Your task to perform on an android device: read, delete, or share a saved page in the chrome app Image 0: 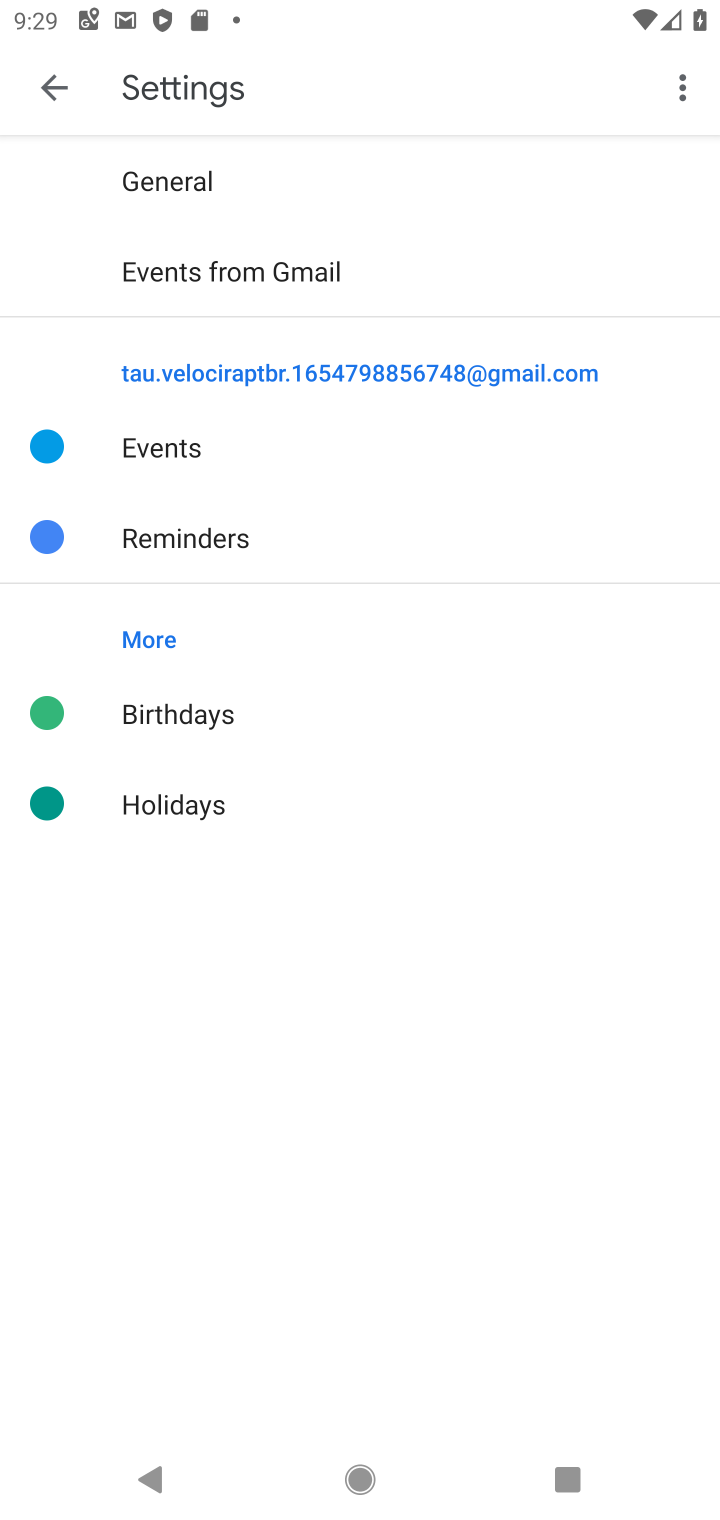
Step 0: press back button
Your task to perform on an android device: read, delete, or share a saved page in the chrome app Image 1: 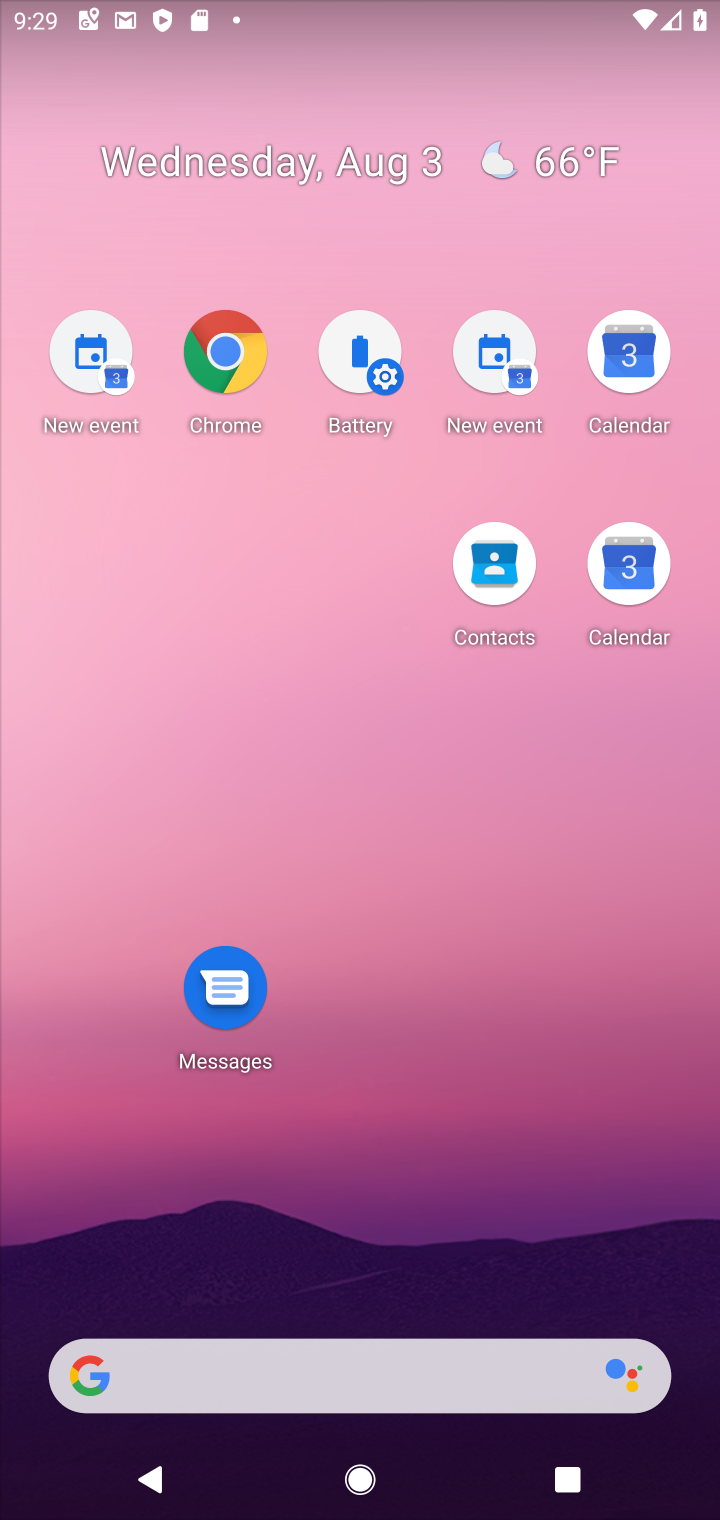
Step 1: press back button
Your task to perform on an android device: read, delete, or share a saved page in the chrome app Image 2: 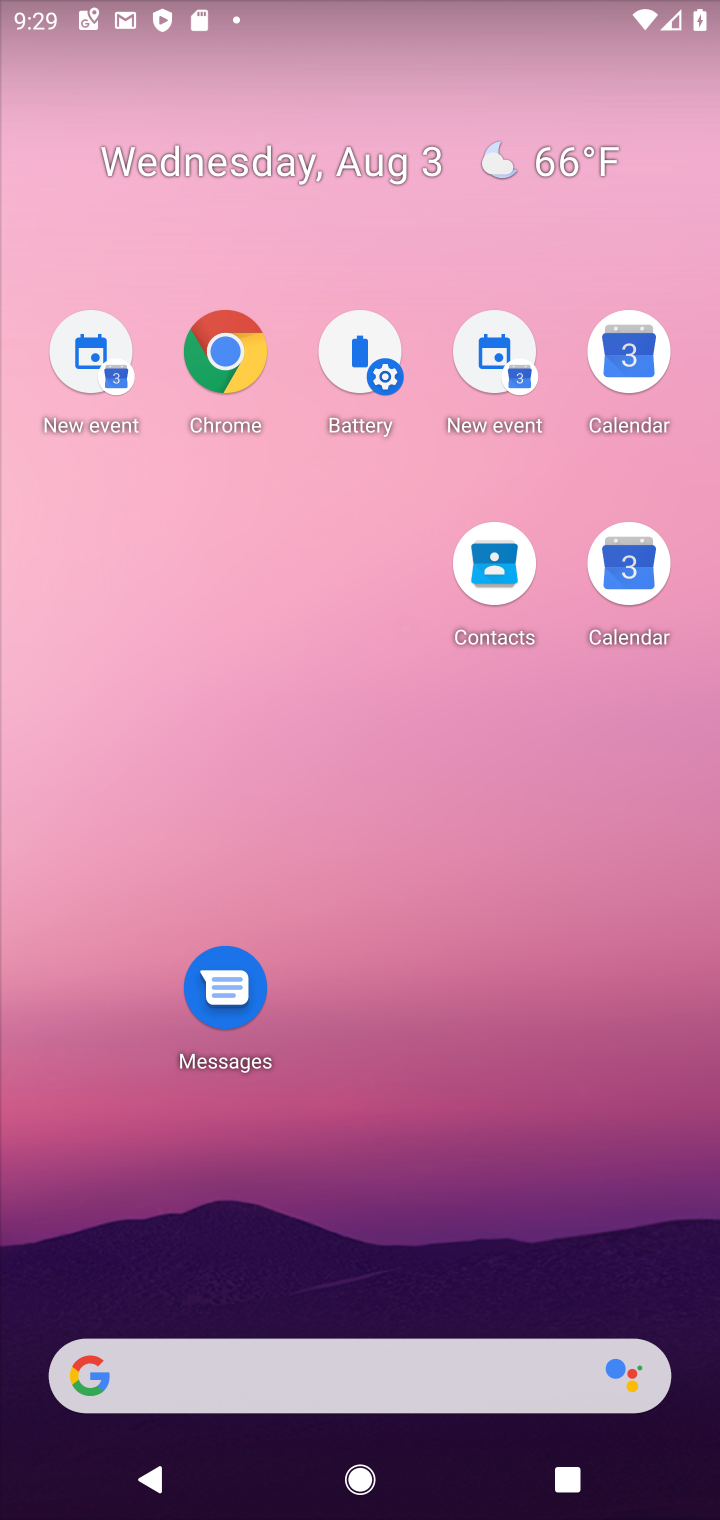
Step 2: drag from (37, 530) to (168, 377)
Your task to perform on an android device: read, delete, or share a saved page in the chrome app Image 3: 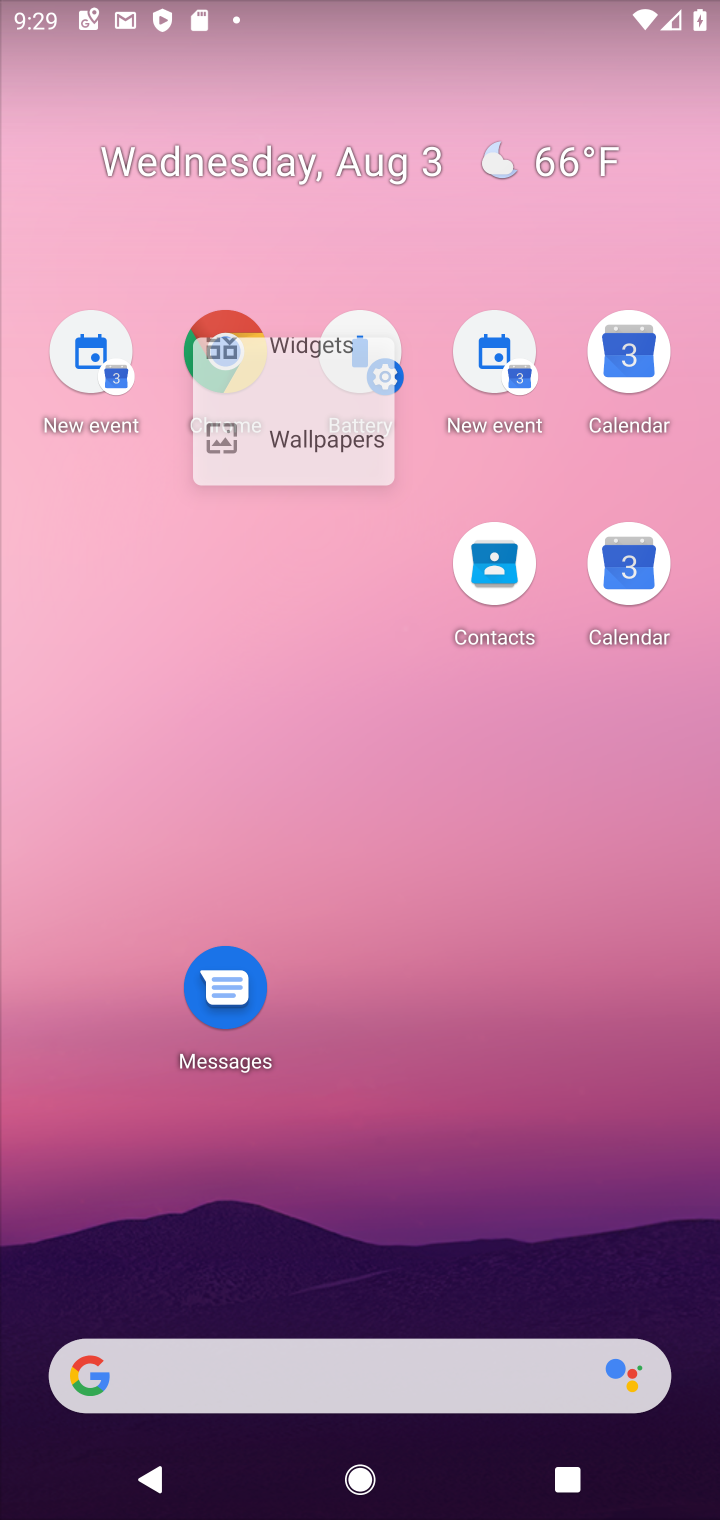
Step 3: click (262, 218)
Your task to perform on an android device: read, delete, or share a saved page in the chrome app Image 4: 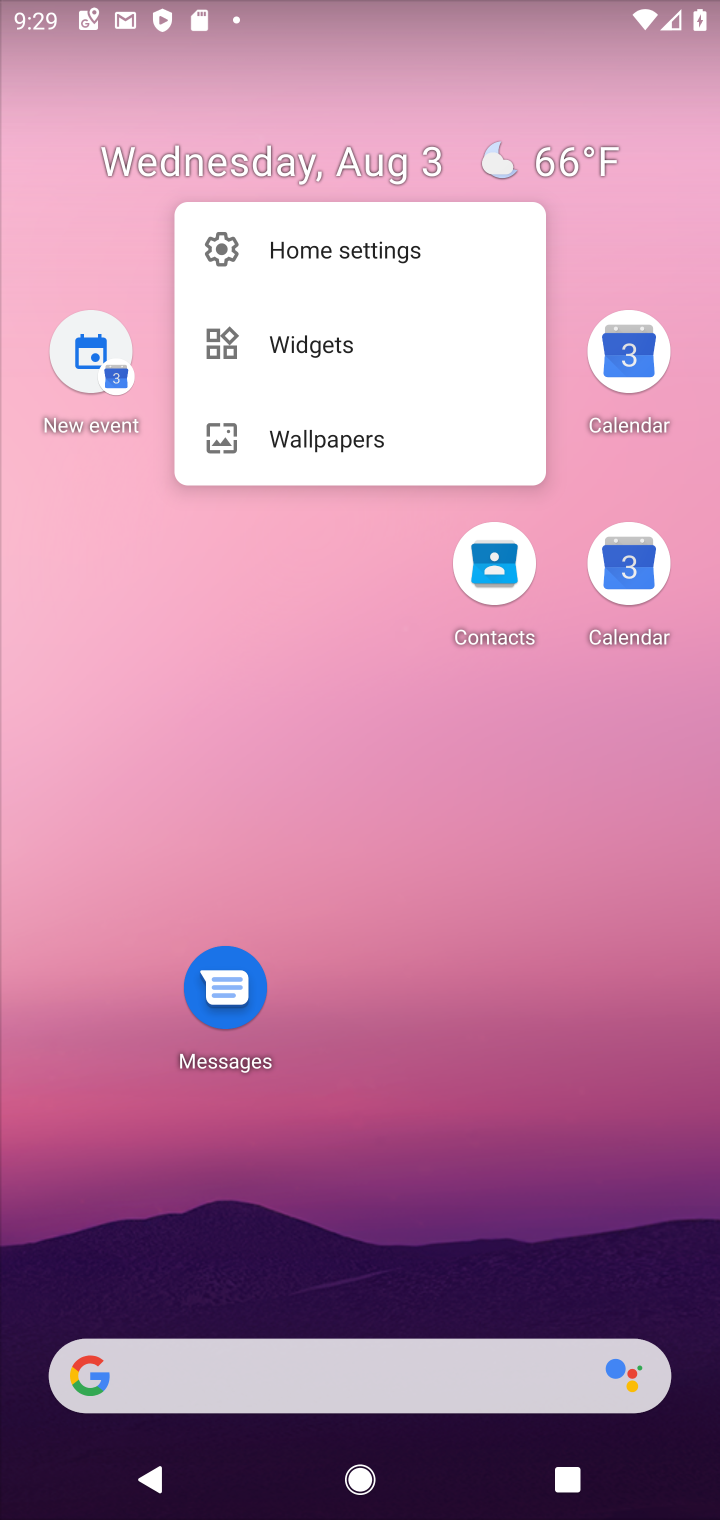
Step 4: drag from (472, 603) to (430, 248)
Your task to perform on an android device: read, delete, or share a saved page in the chrome app Image 5: 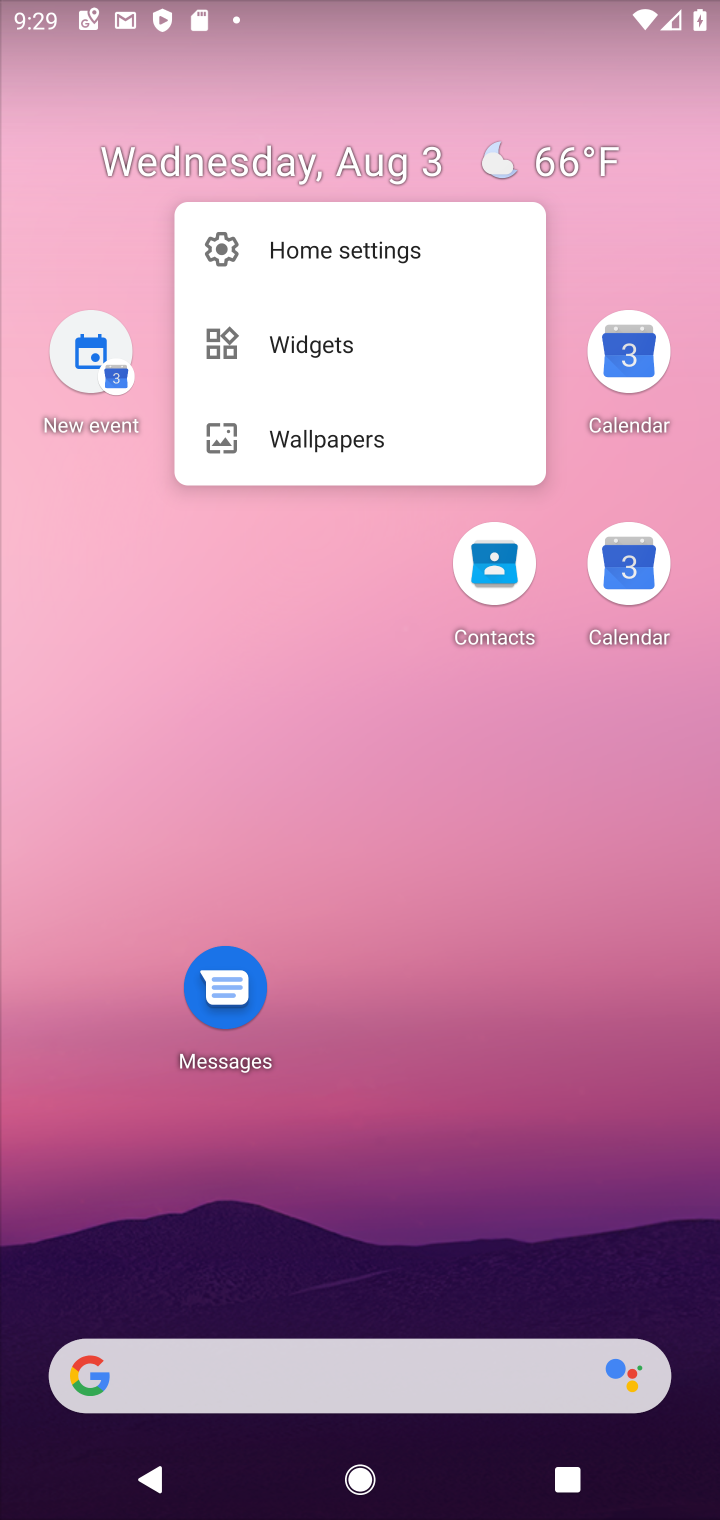
Step 5: click (613, 390)
Your task to perform on an android device: read, delete, or share a saved page in the chrome app Image 6: 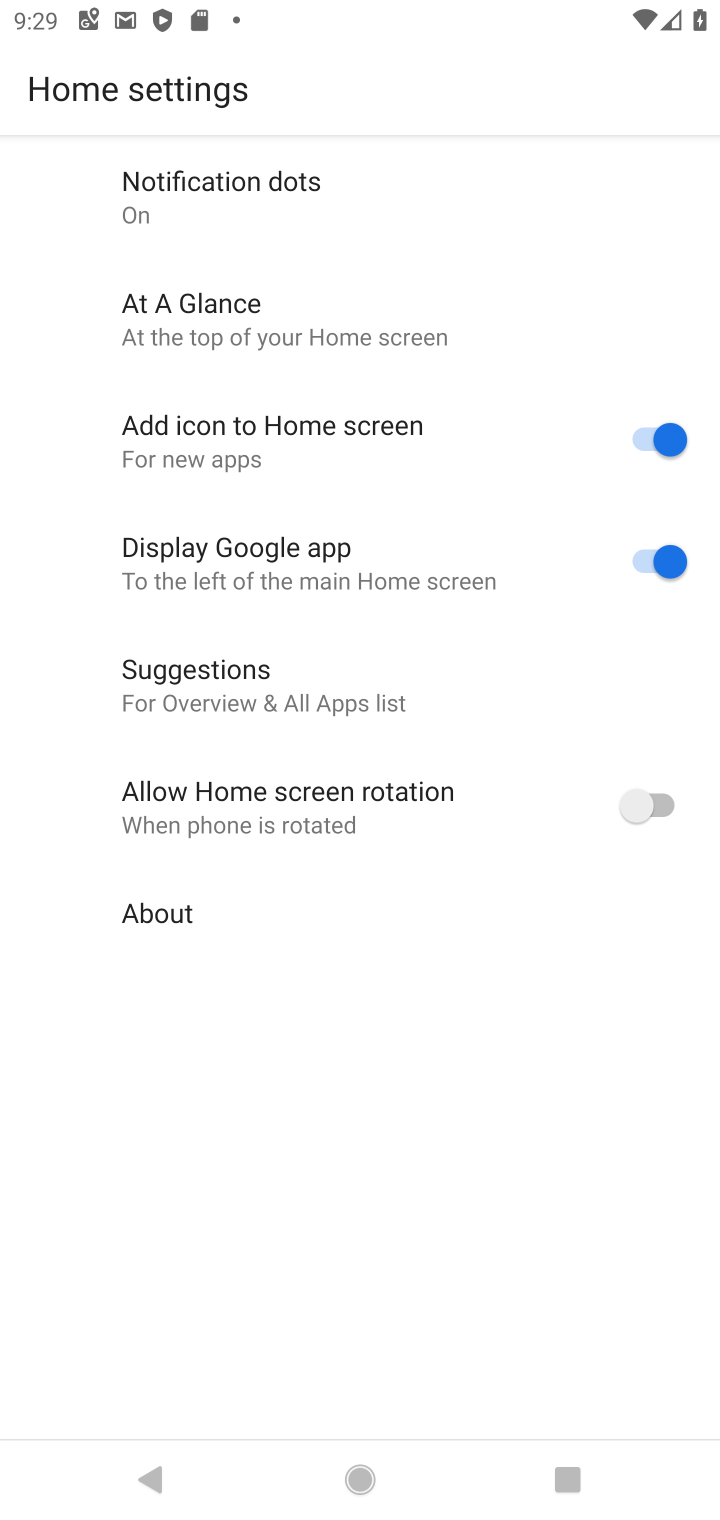
Step 6: click (567, 191)
Your task to perform on an android device: read, delete, or share a saved page in the chrome app Image 7: 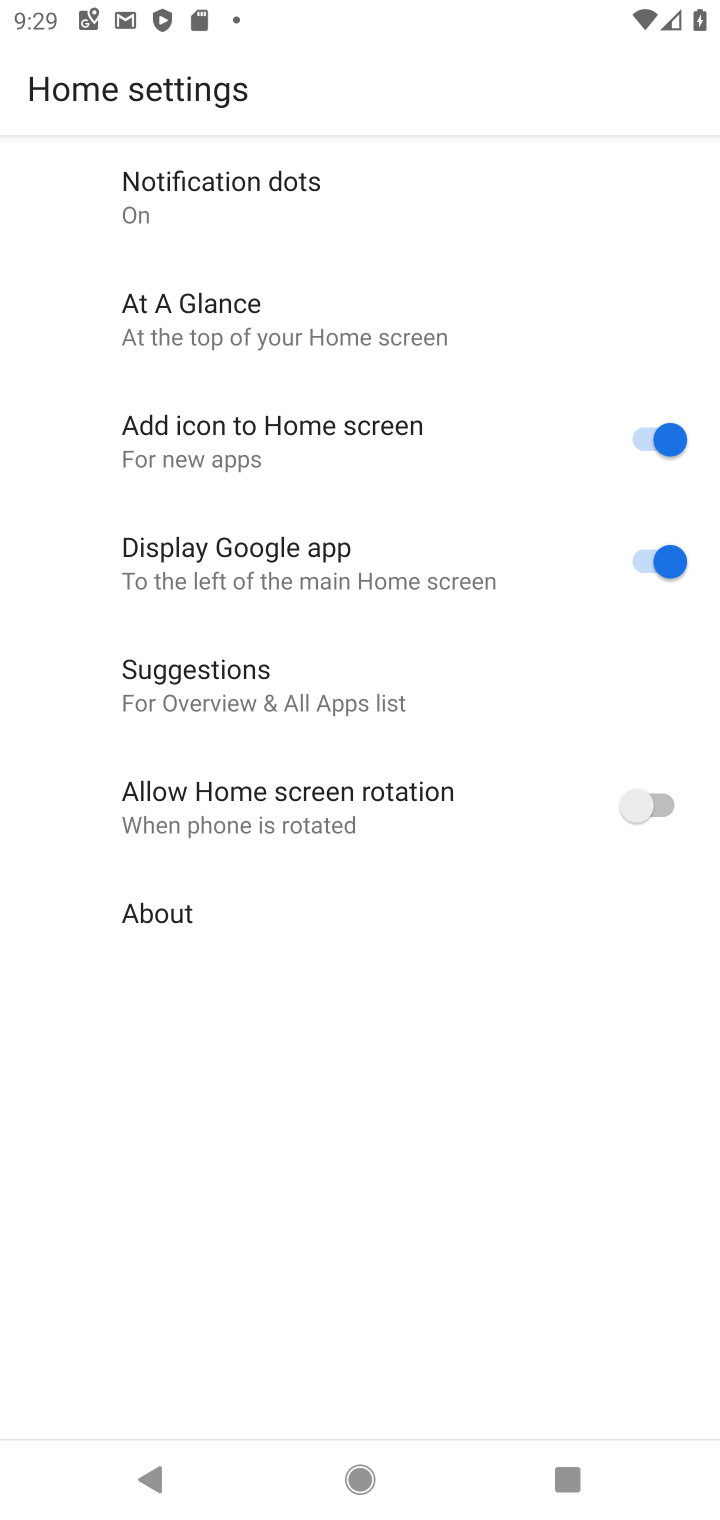
Step 7: press back button
Your task to perform on an android device: read, delete, or share a saved page in the chrome app Image 8: 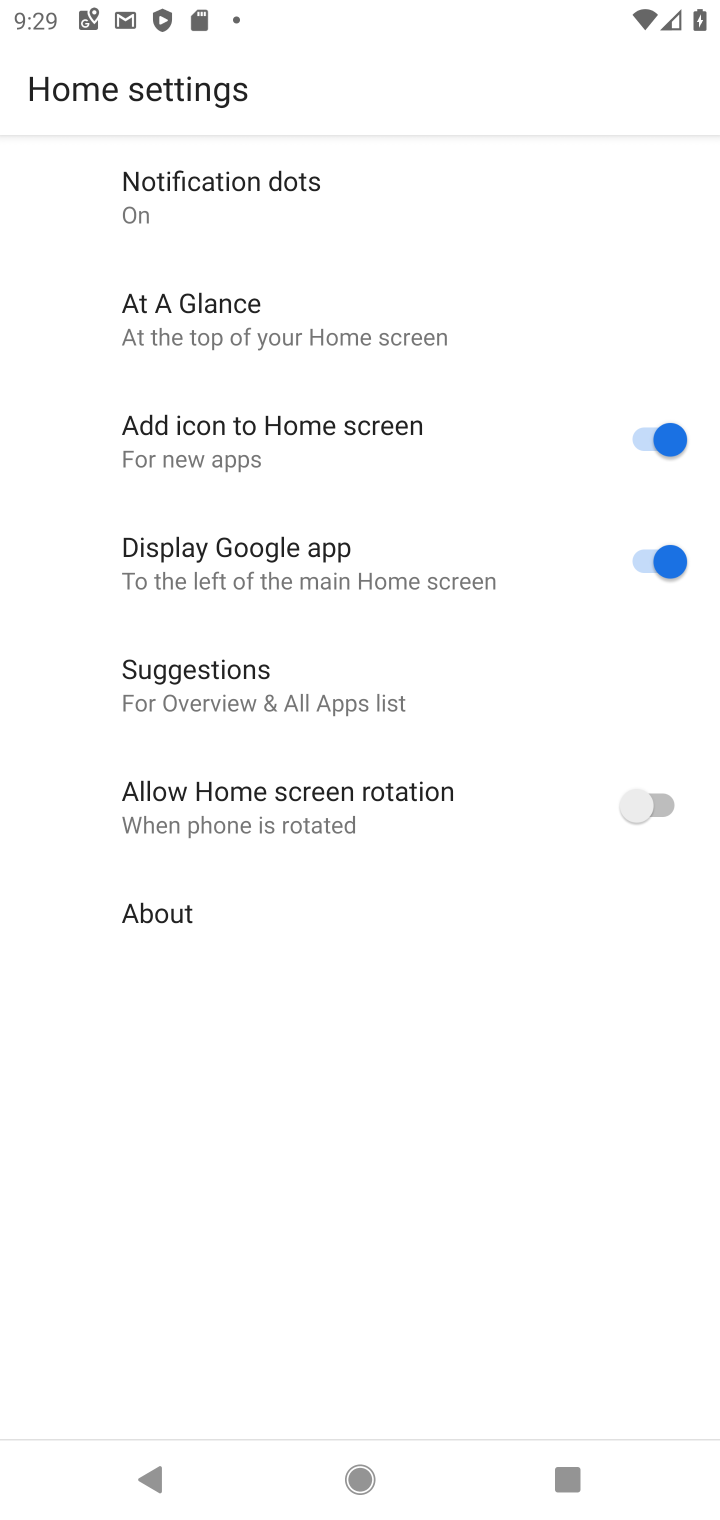
Step 8: click (51, 114)
Your task to perform on an android device: read, delete, or share a saved page in the chrome app Image 9: 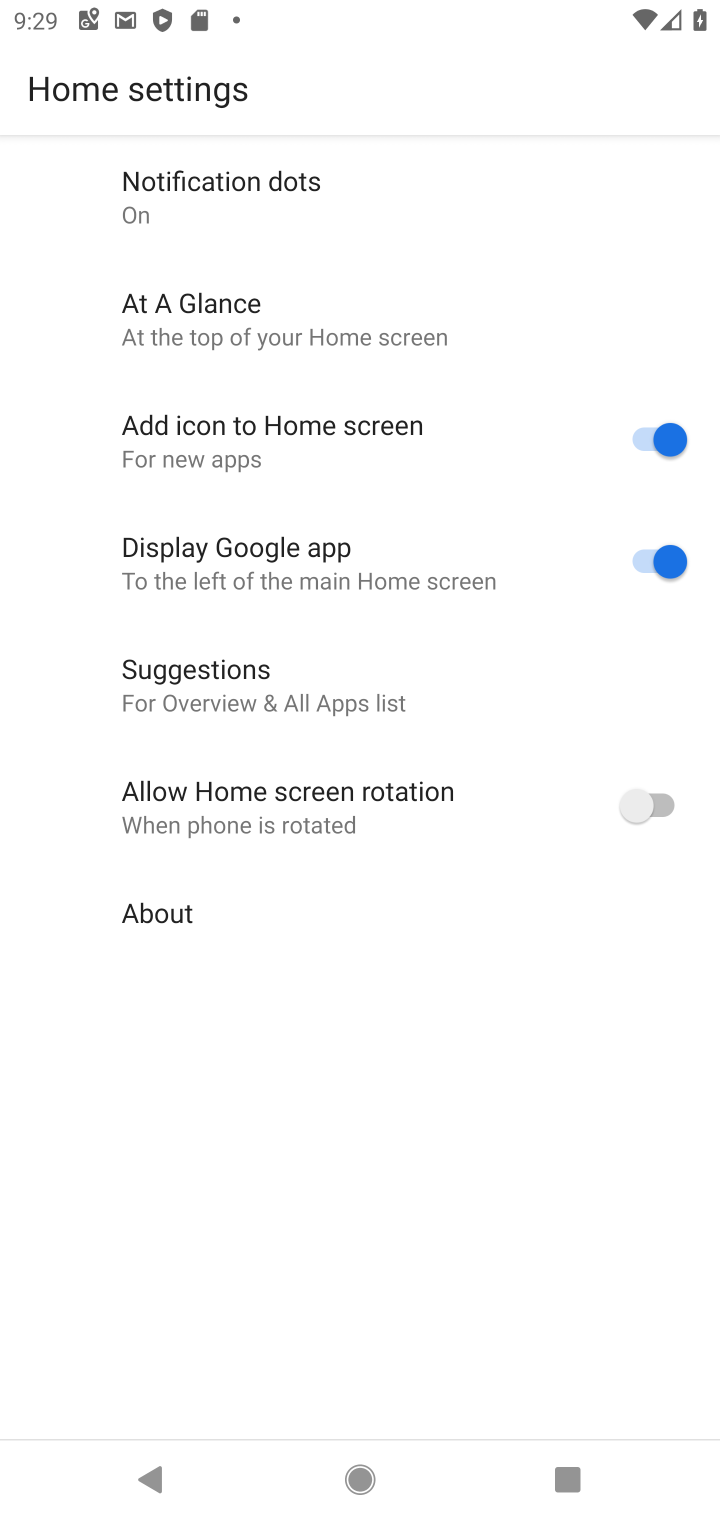
Step 9: press back button
Your task to perform on an android device: read, delete, or share a saved page in the chrome app Image 10: 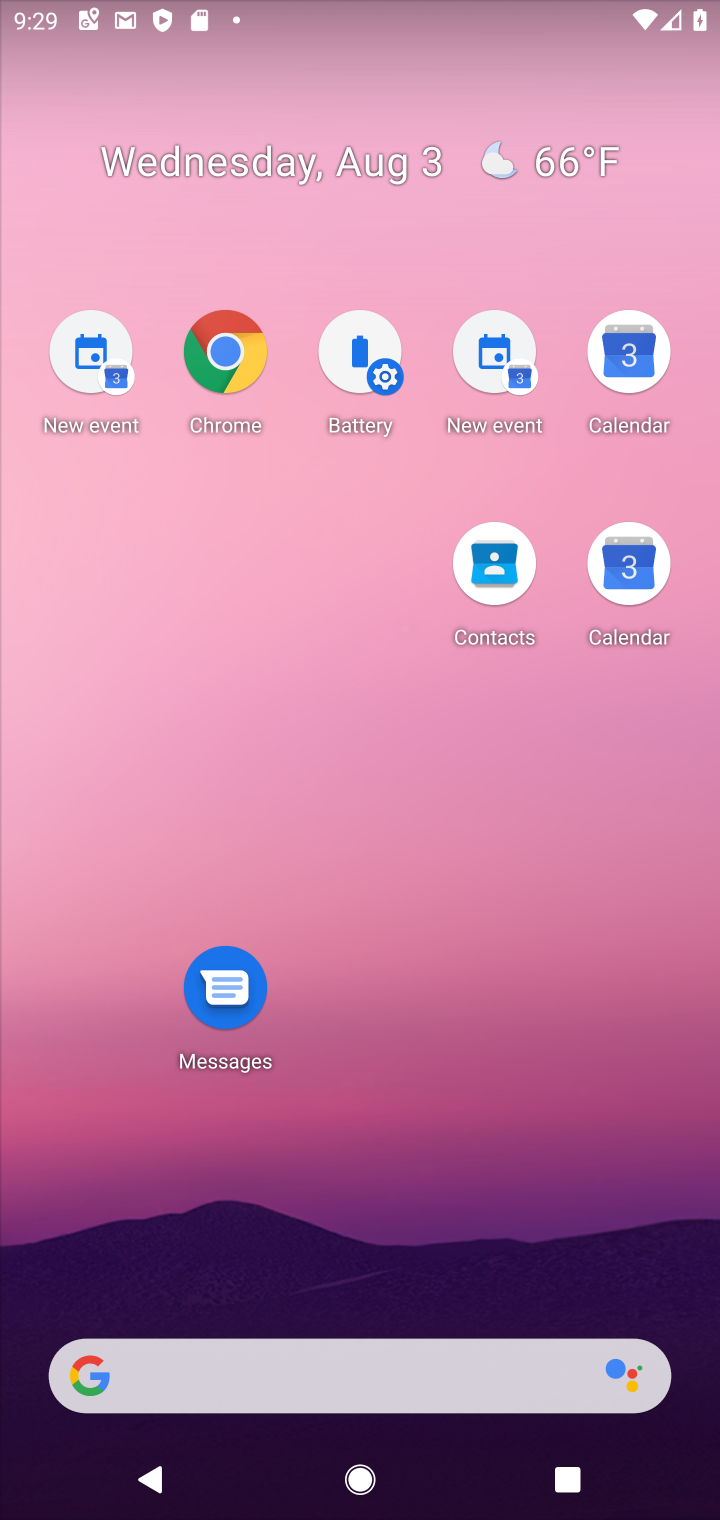
Step 10: drag from (429, 1071) to (425, 452)
Your task to perform on an android device: read, delete, or share a saved page in the chrome app Image 11: 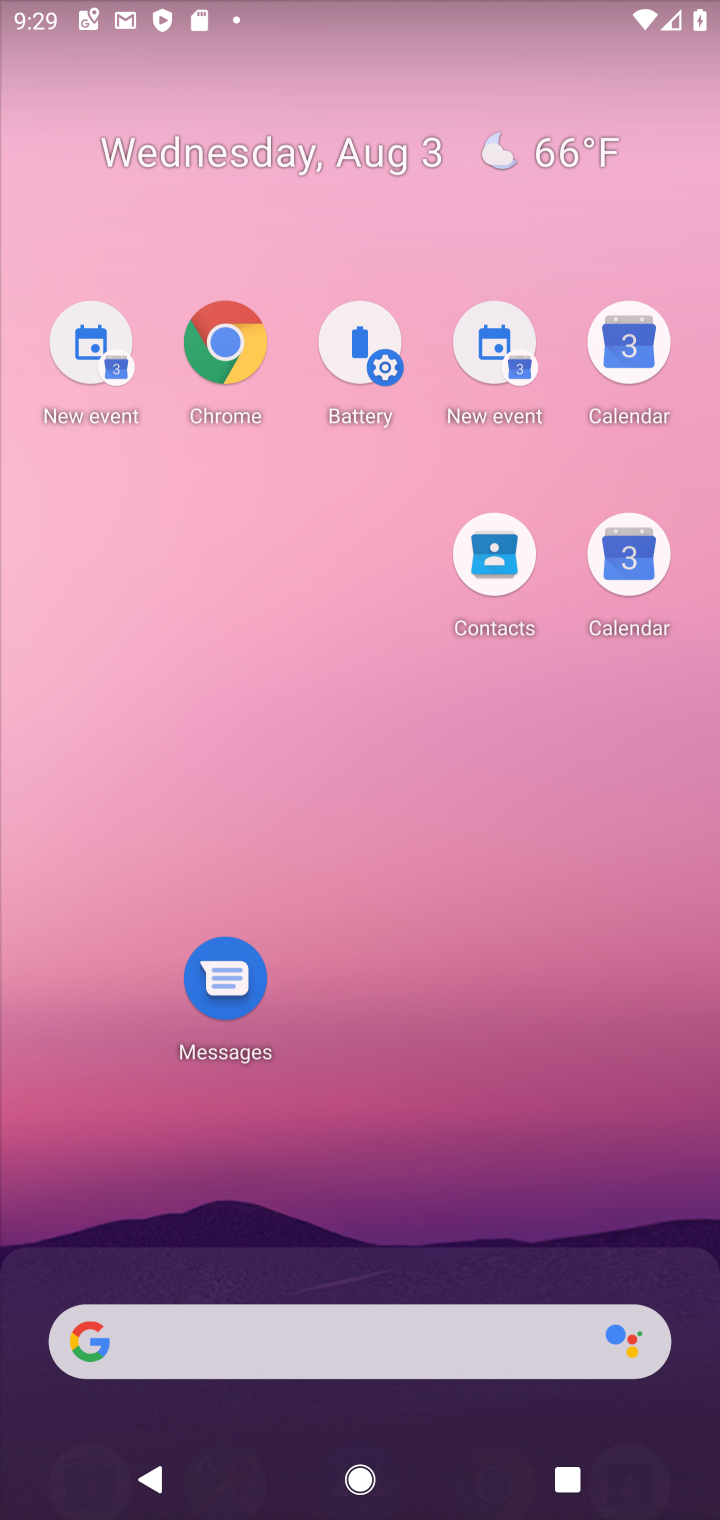
Step 11: drag from (529, 417) to (508, 338)
Your task to perform on an android device: read, delete, or share a saved page in the chrome app Image 12: 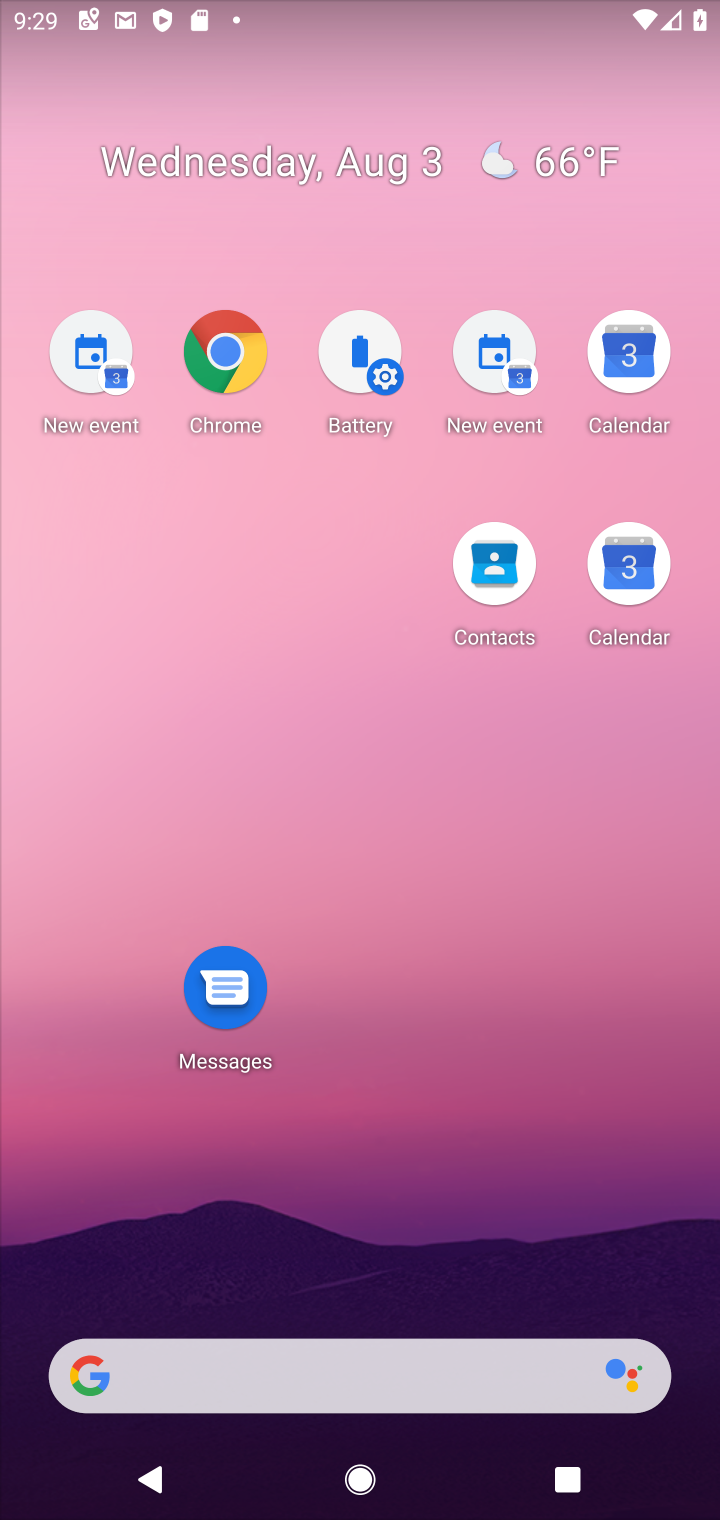
Step 12: drag from (428, 1032) to (219, 269)
Your task to perform on an android device: read, delete, or share a saved page in the chrome app Image 13: 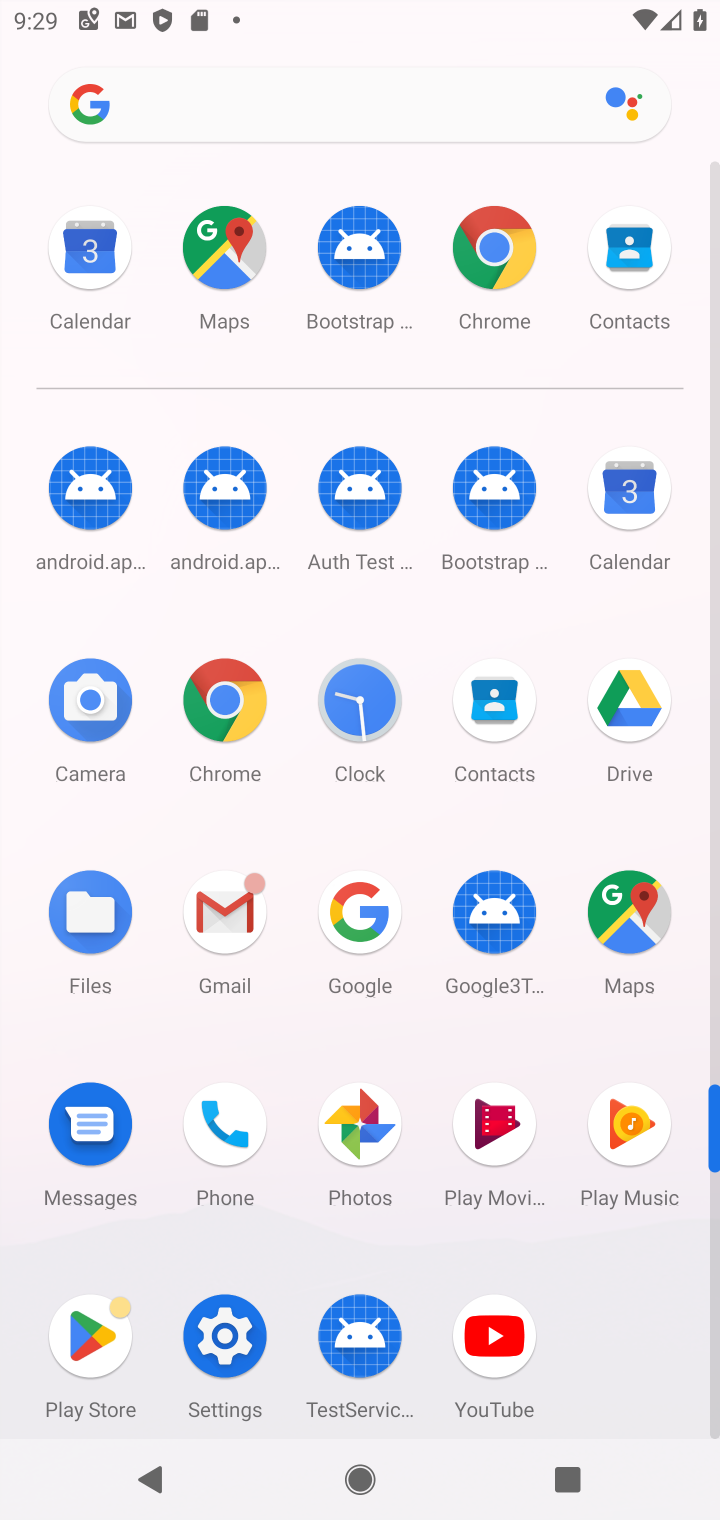
Step 13: click (480, 241)
Your task to perform on an android device: read, delete, or share a saved page in the chrome app Image 14: 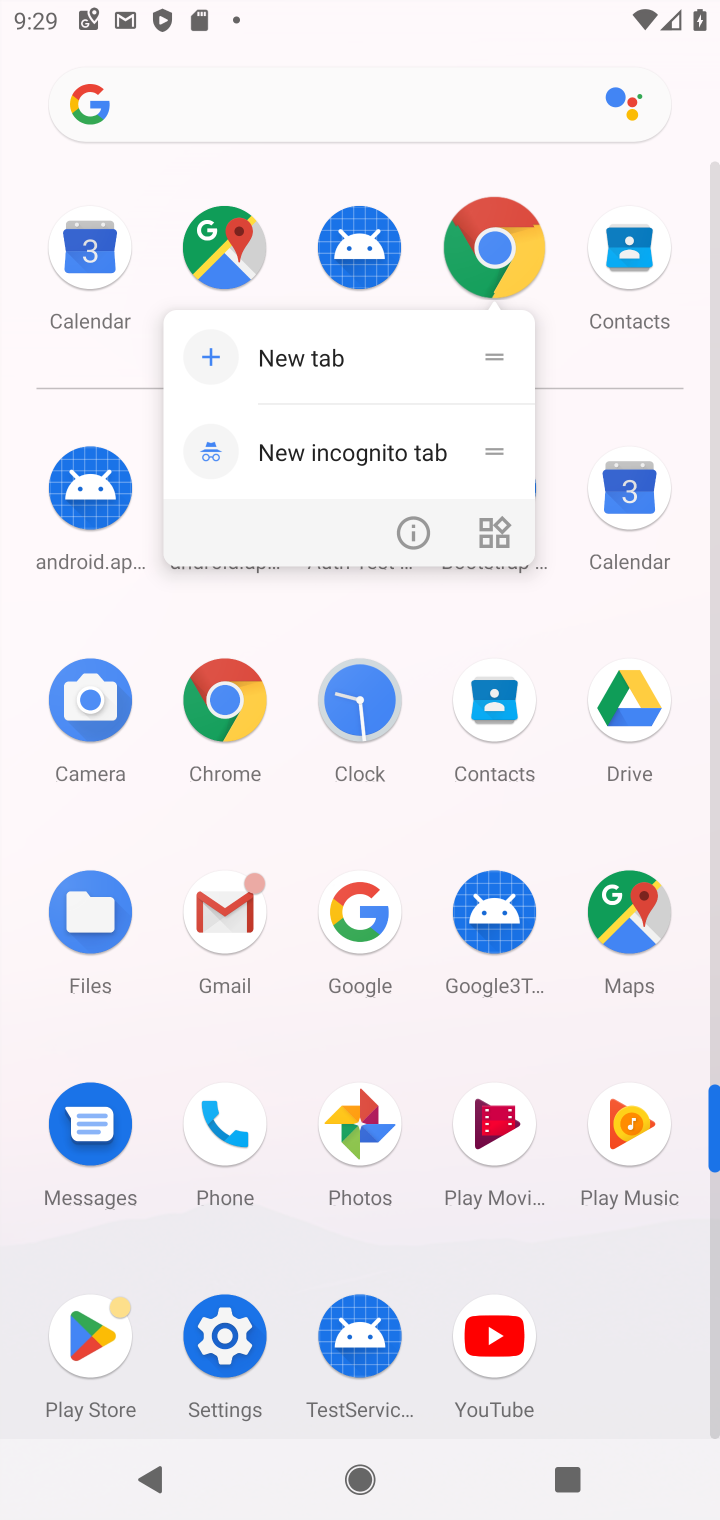
Step 14: click (480, 241)
Your task to perform on an android device: read, delete, or share a saved page in the chrome app Image 15: 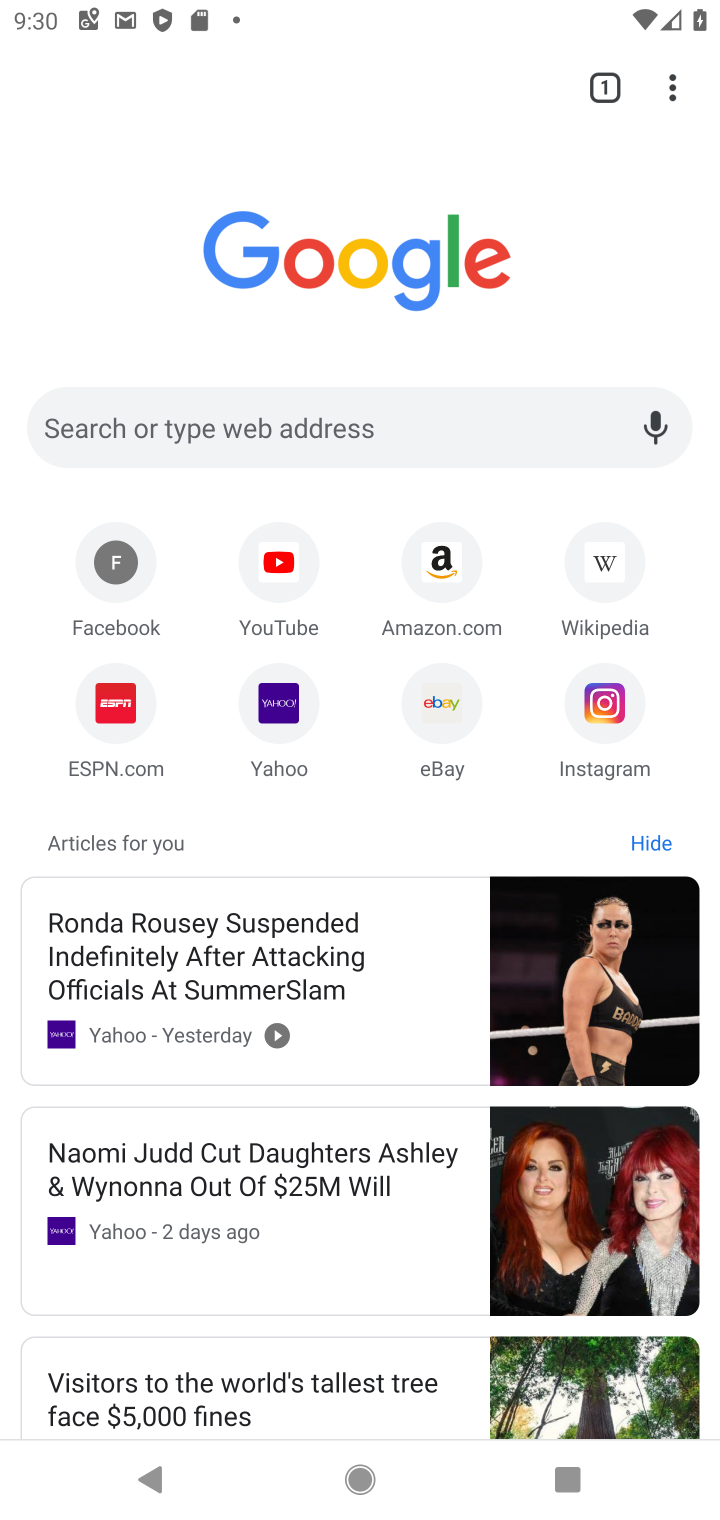
Step 15: drag from (678, 86) to (337, 590)
Your task to perform on an android device: read, delete, or share a saved page in the chrome app Image 16: 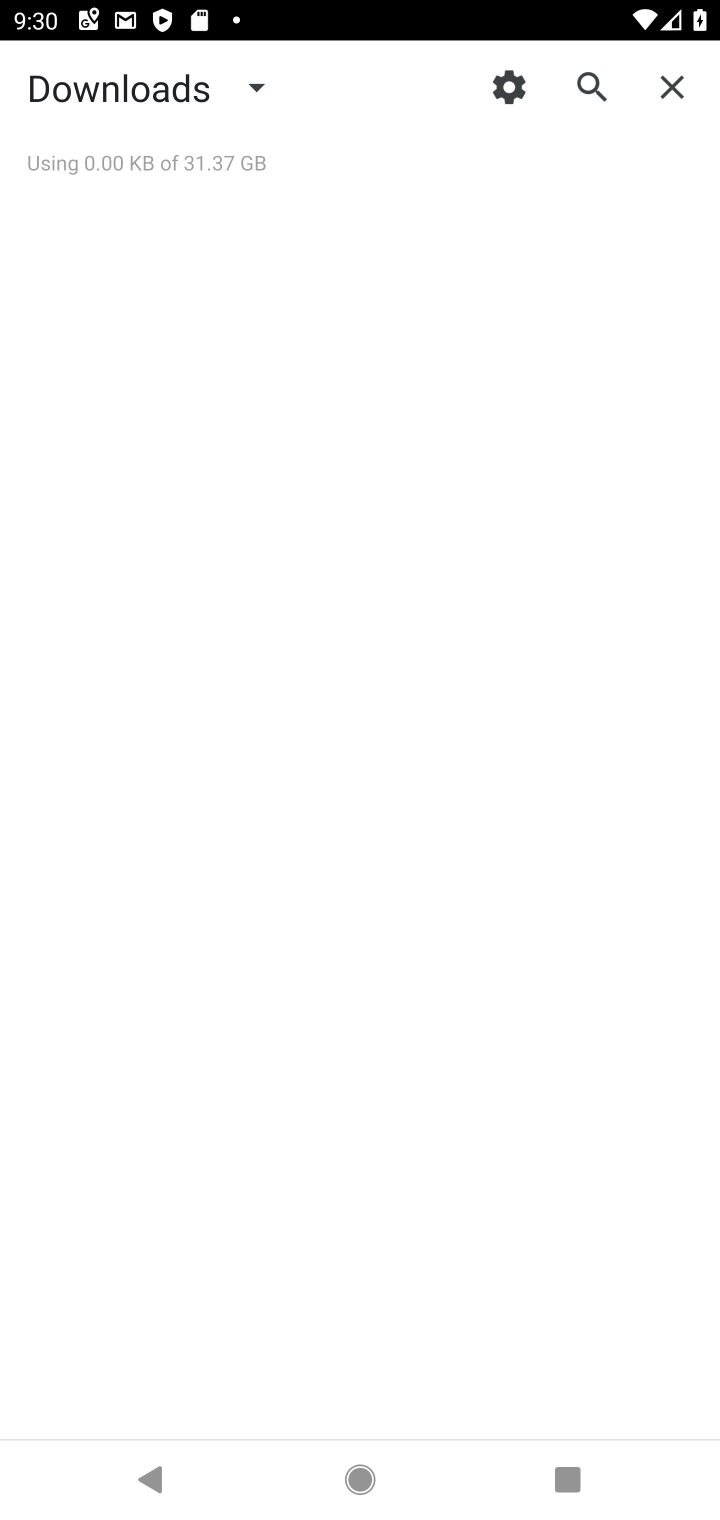
Step 16: click (235, 88)
Your task to perform on an android device: read, delete, or share a saved page in the chrome app Image 17: 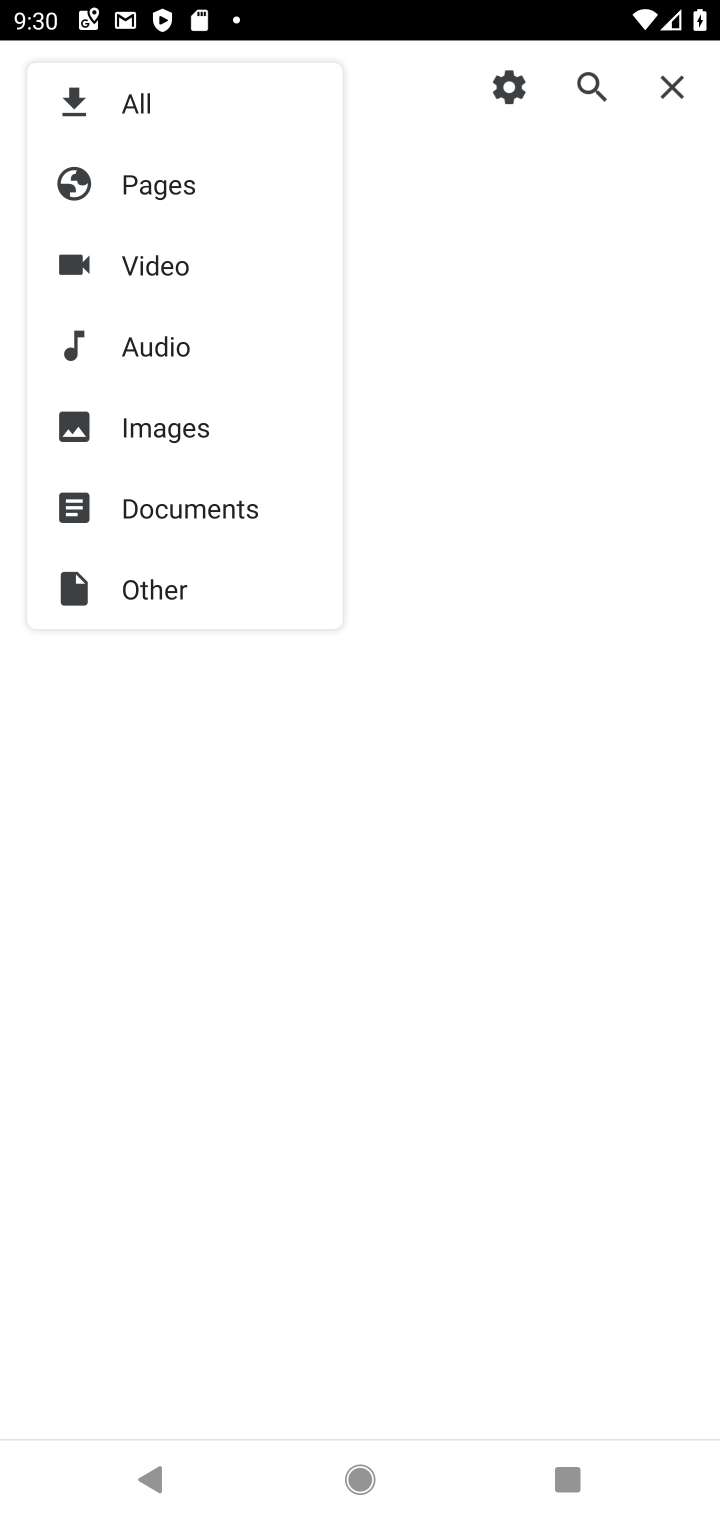
Step 17: click (185, 252)
Your task to perform on an android device: read, delete, or share a saved page in the chrome app Image 18: 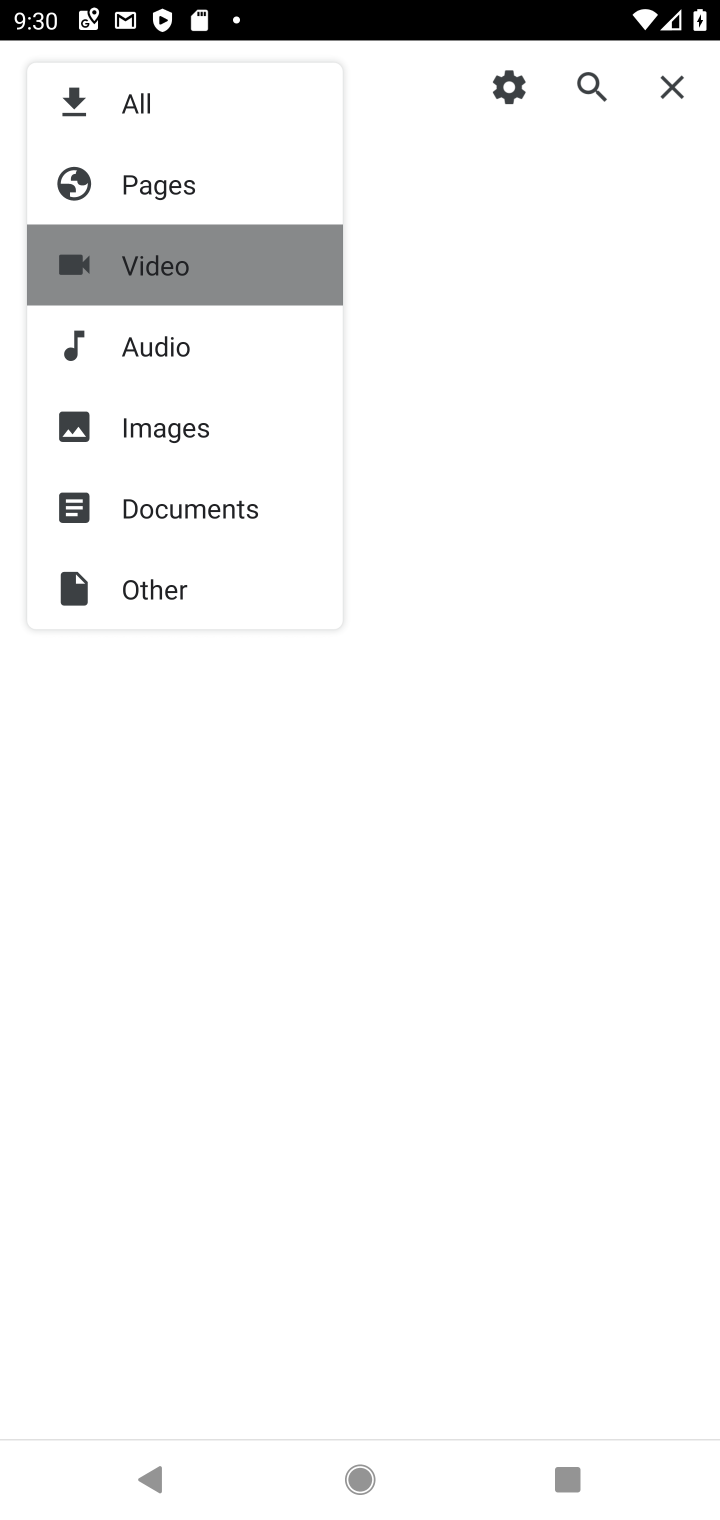
Step 18: click (196, 261)
Your task to perform on an android device: read, delete, or share a saved page in the chrome app Image 19: 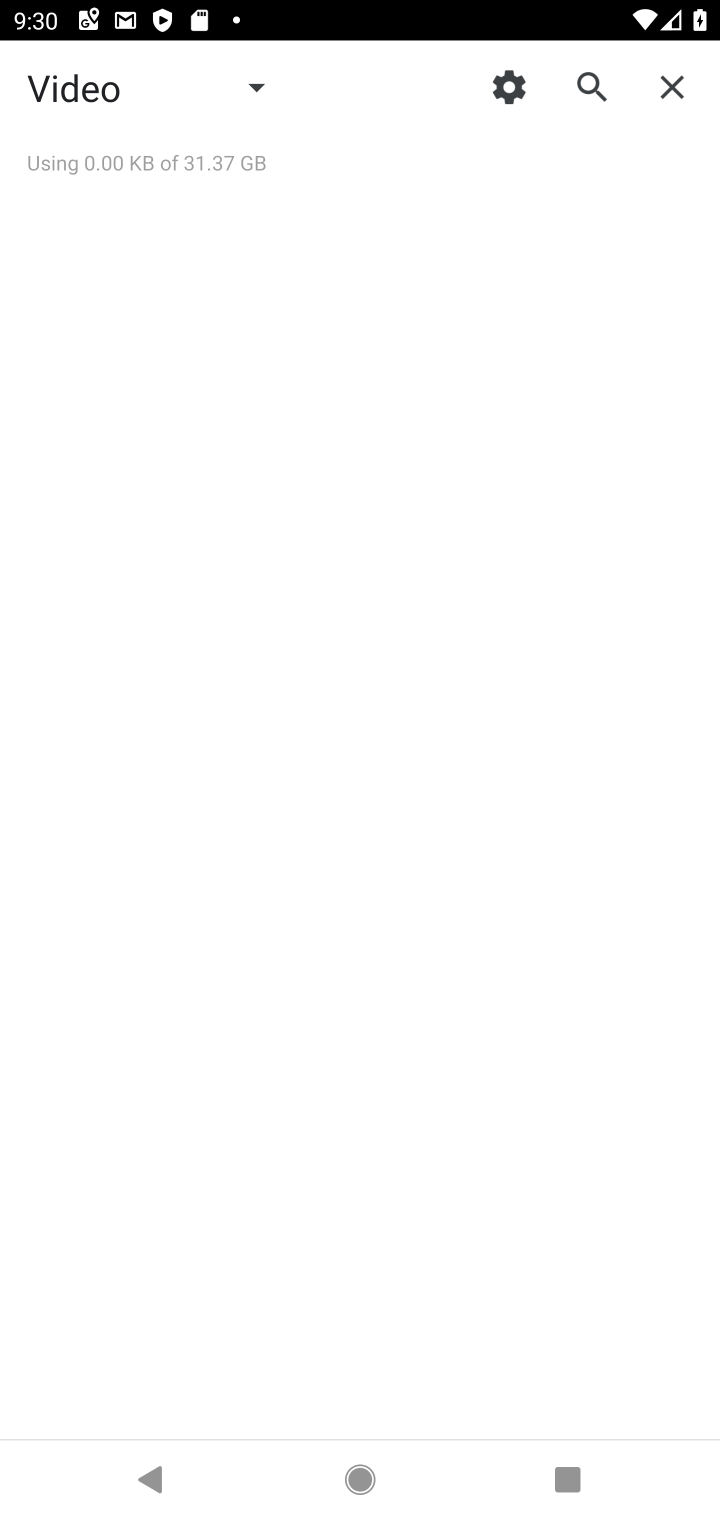
Step 19: task complete